Your task to perform on an android device: Search for sushi restaurants on Maps Image 0: 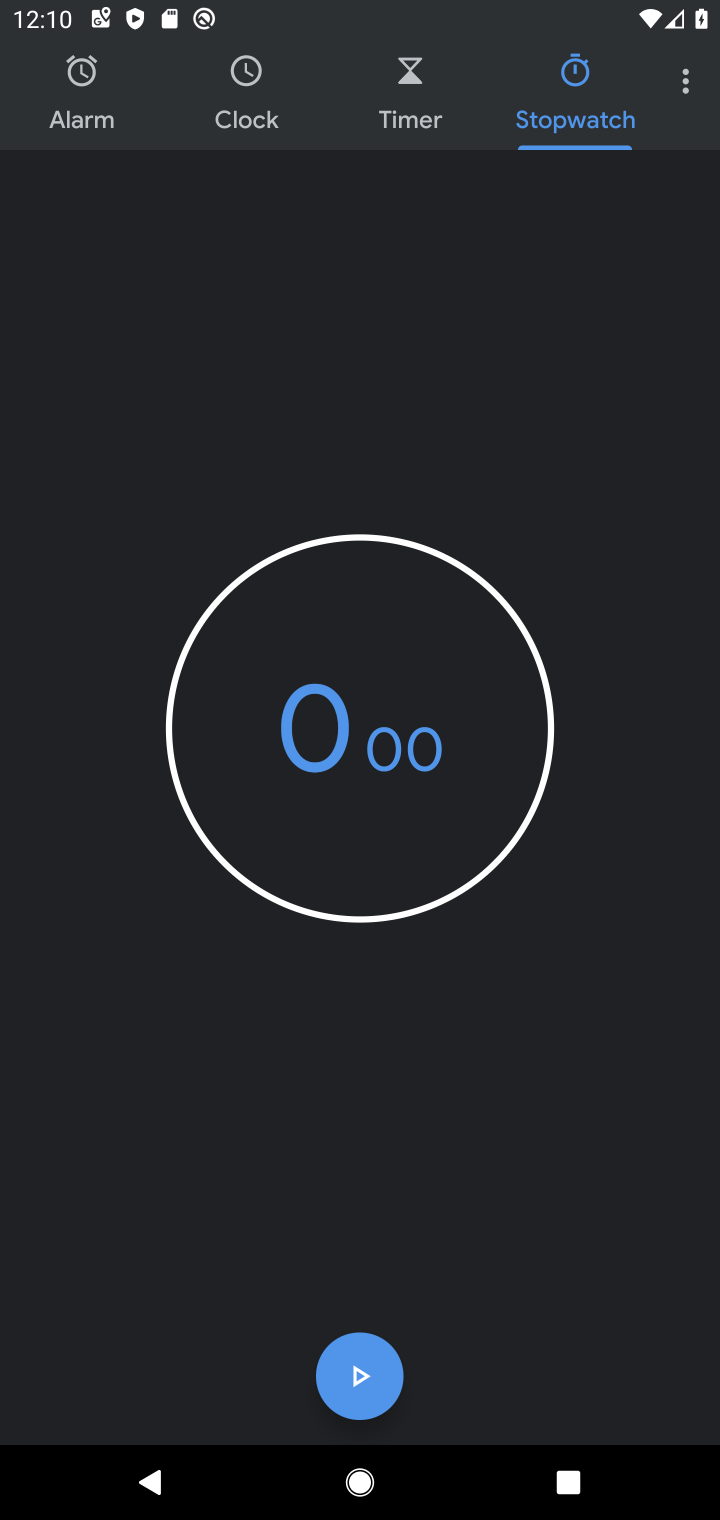
Step 0: press back button
Your task to perform on an android device: Search for sushi restaurants on Maps Image 1: 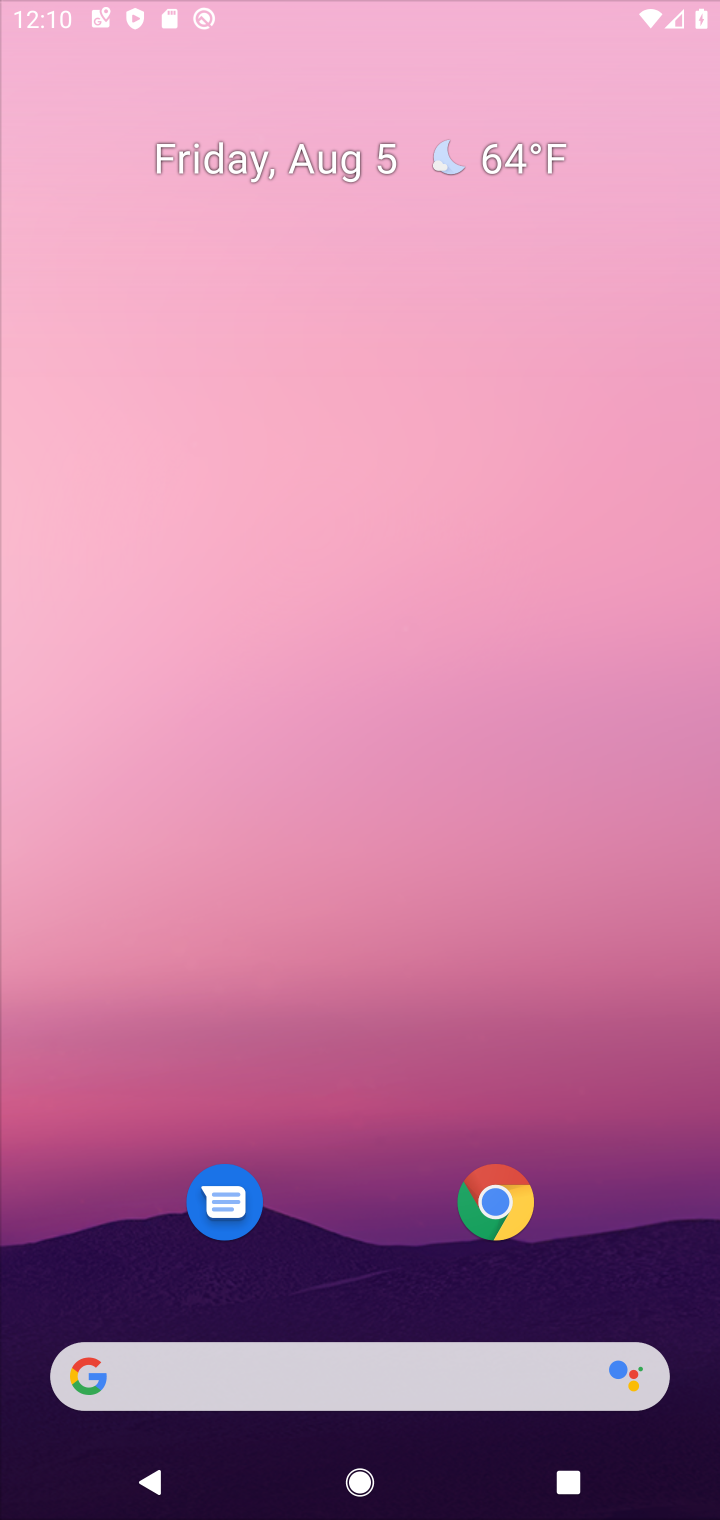
Step 1: press back button
Your task to perform on an android device: Search for sushi restaurants on Maps Image 2: 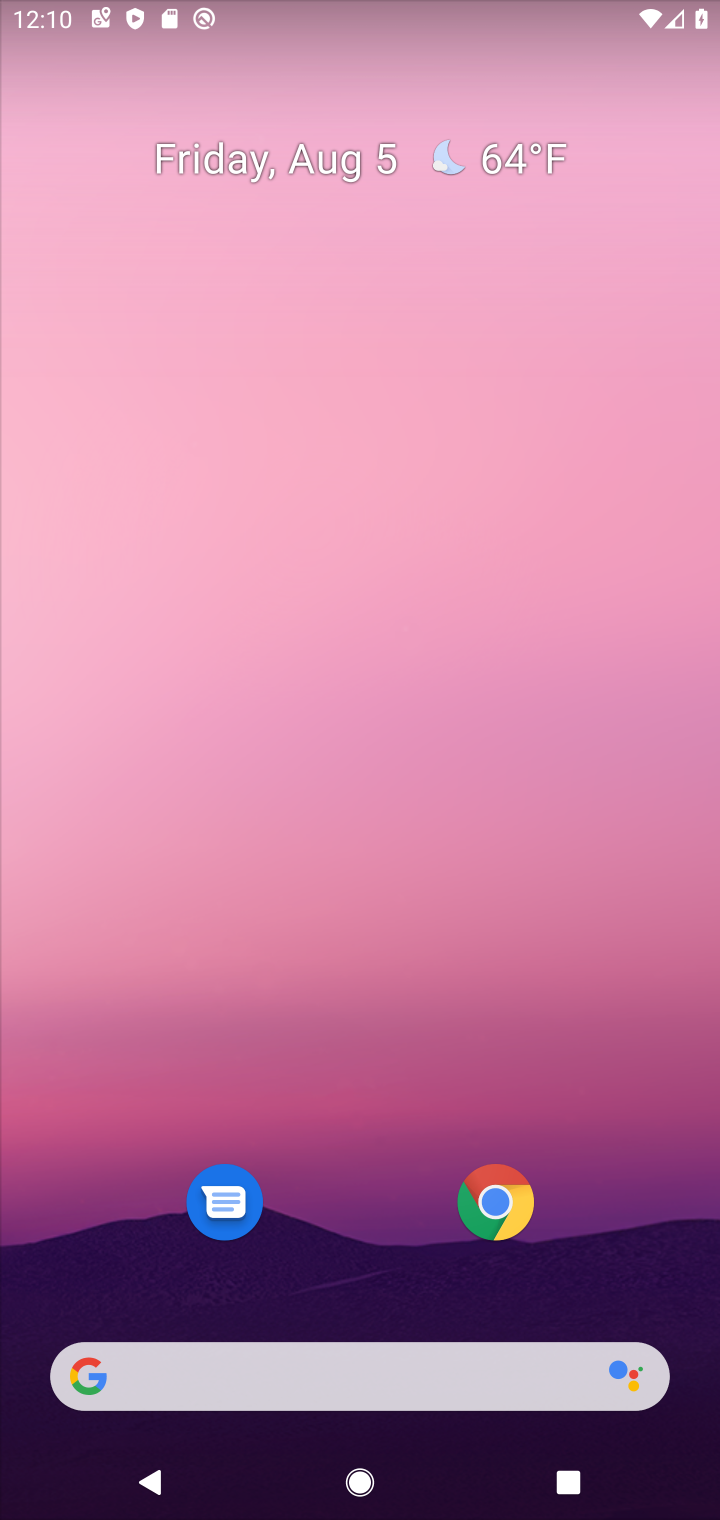
Step 2: drag from (305, 1295) to (444, 139)
Your task to perform on an android device: Search for sushi restaurants on Maps Image 3: 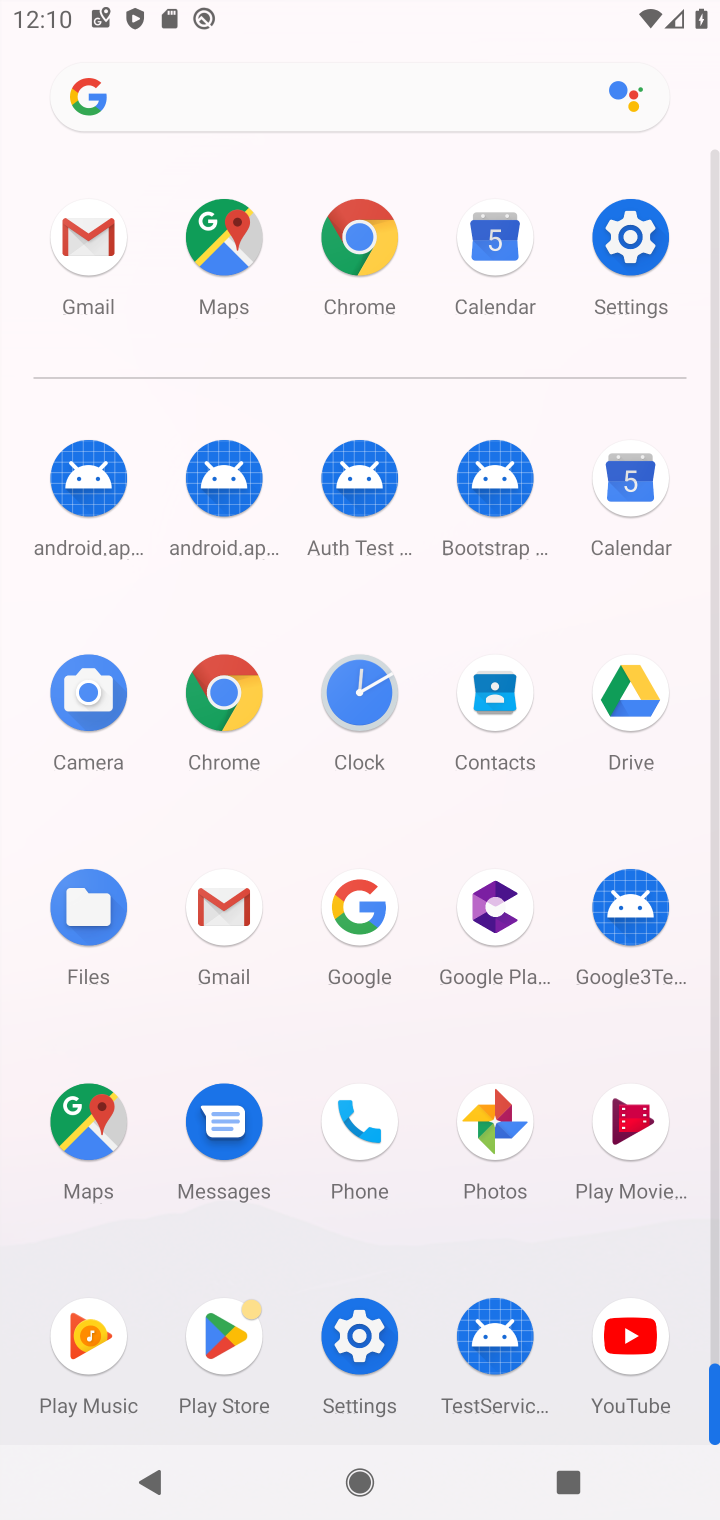
Step 3: click (107, 1169)
Your task to perform on an android device: Search for sushi restaurants on Maps Image 4: 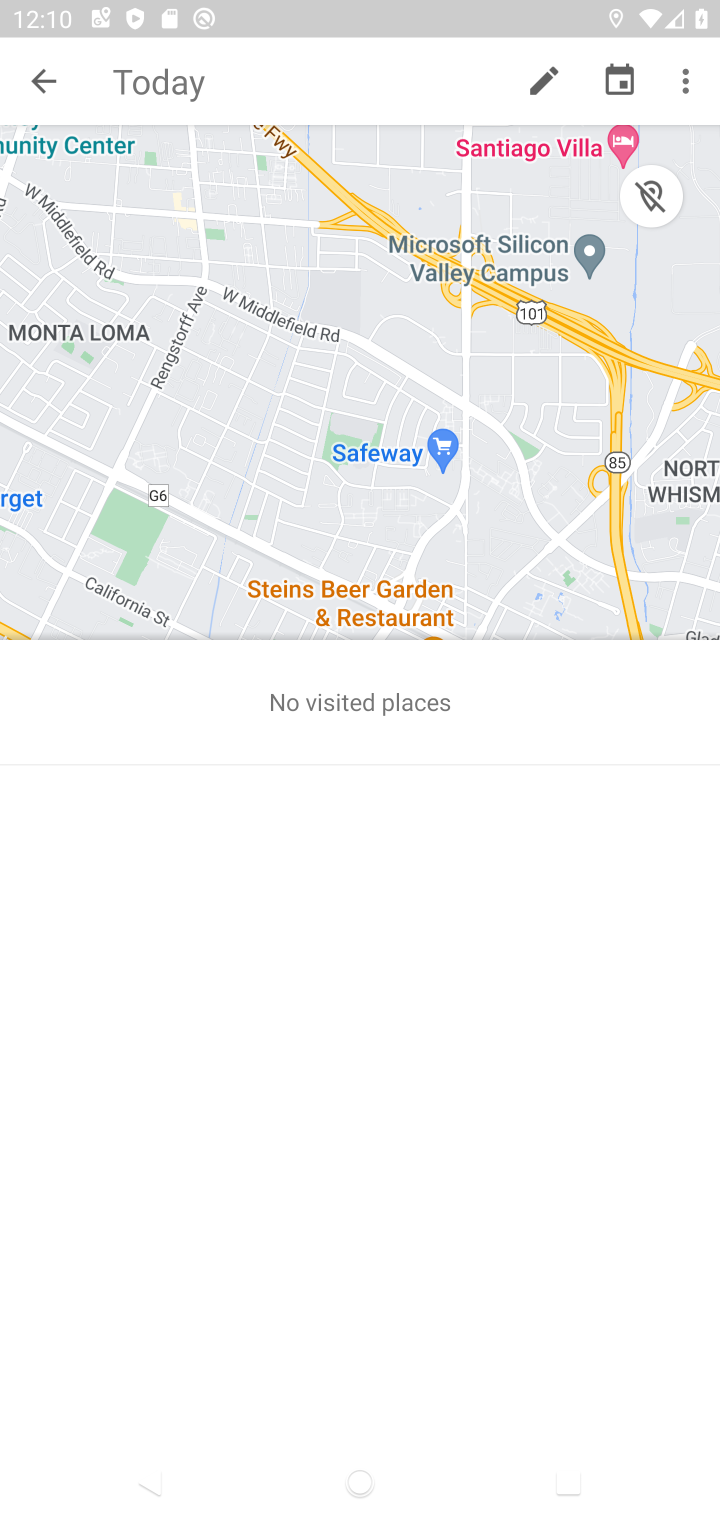
Step 4: click (44, 92)
Your task to perform on an android device: Search for sushi restaurants on Maps Image 5: 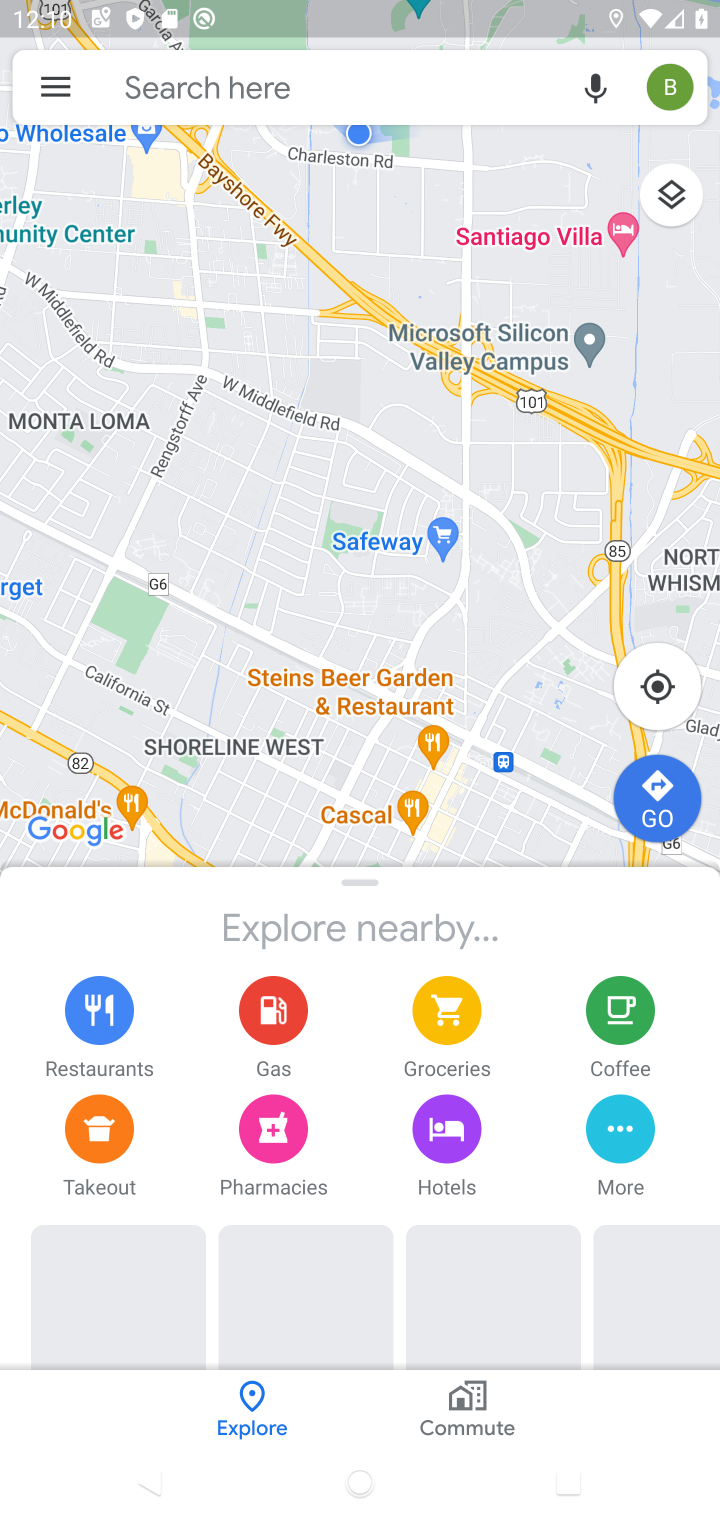
Step 5: click (275, 82)
Your task to perform on an android device: Search for sushi restaurants on Maps Image 6: 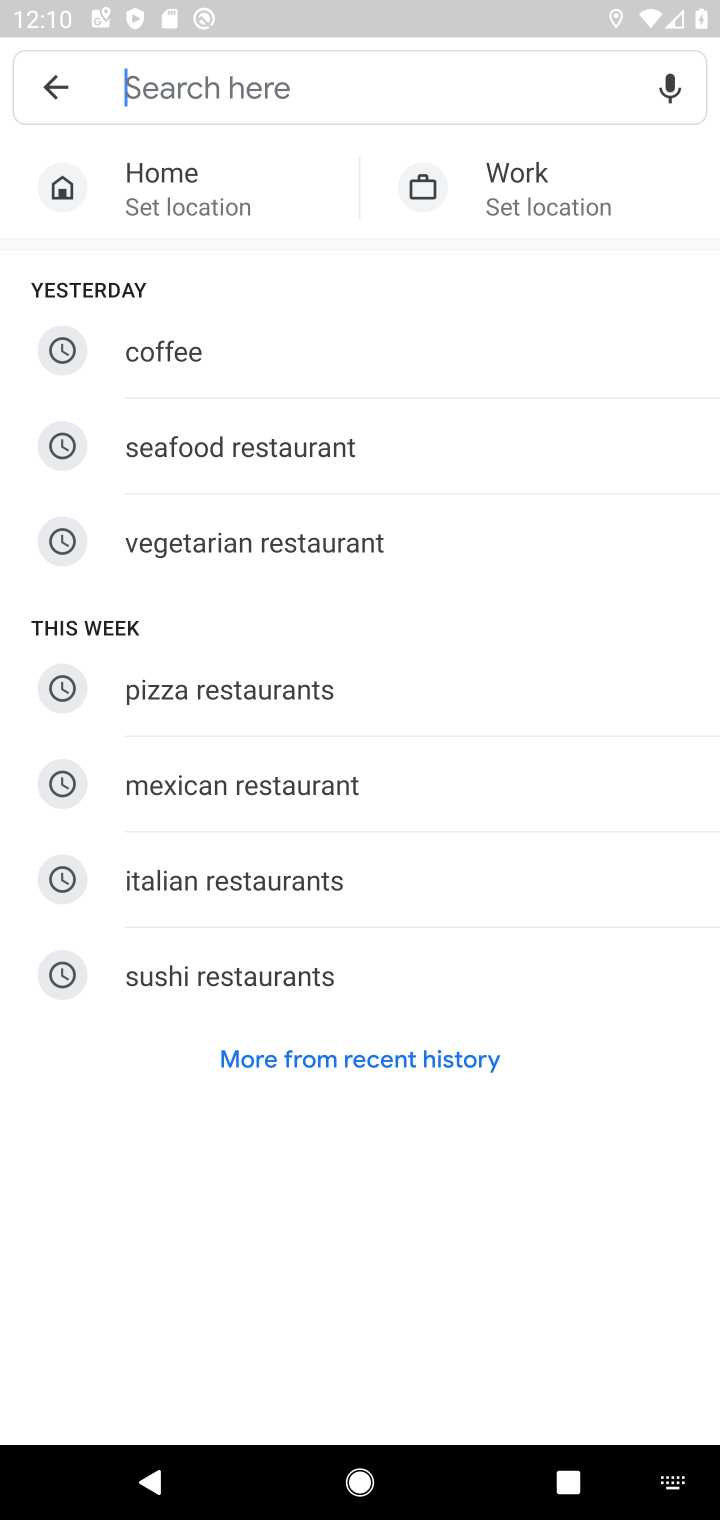
Step 6: type "sushi restaurants"
Your task to perform on an android device: Search for sushi restaurants on Maps Image 7: 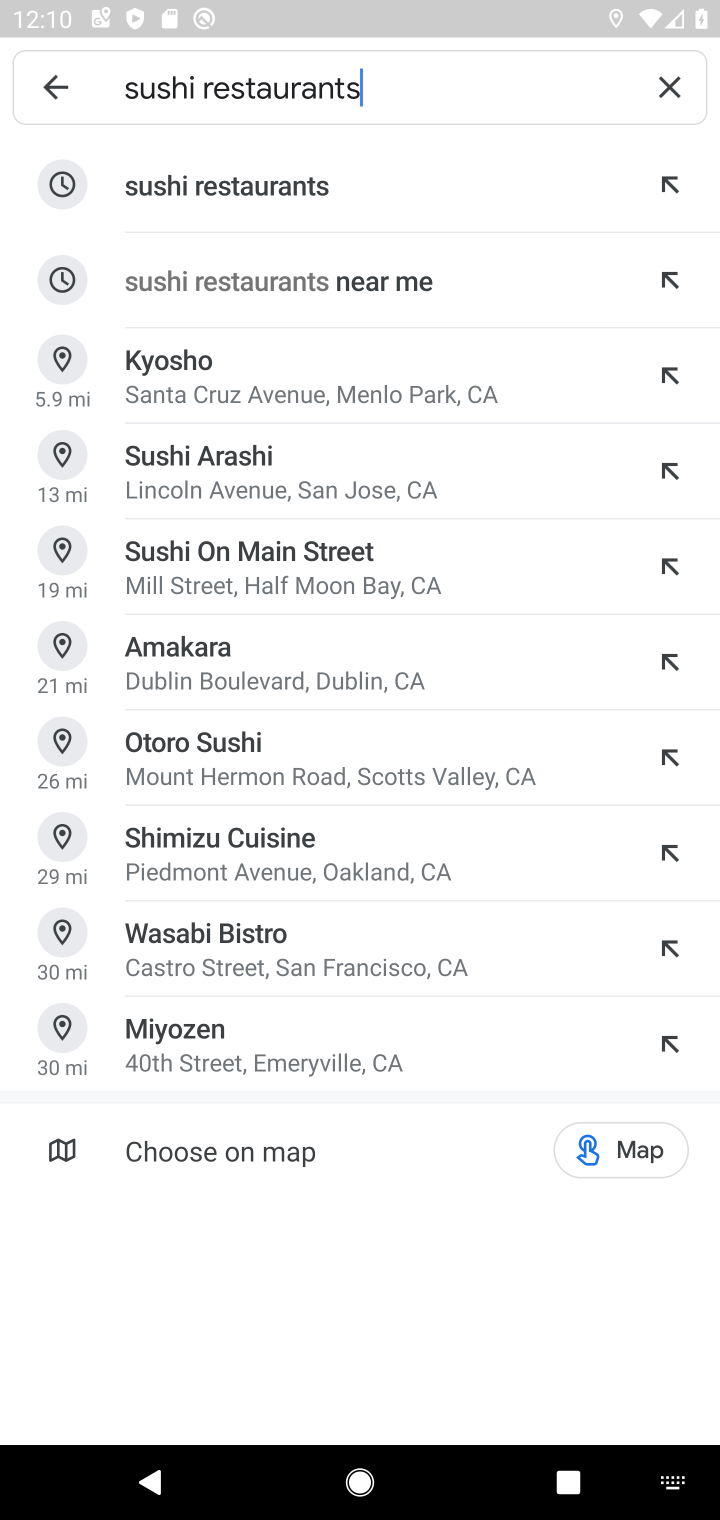
Step 7: click (253, 198)
Your task to perform on an android device: Search for sushi restaurants on Maps Image 8: 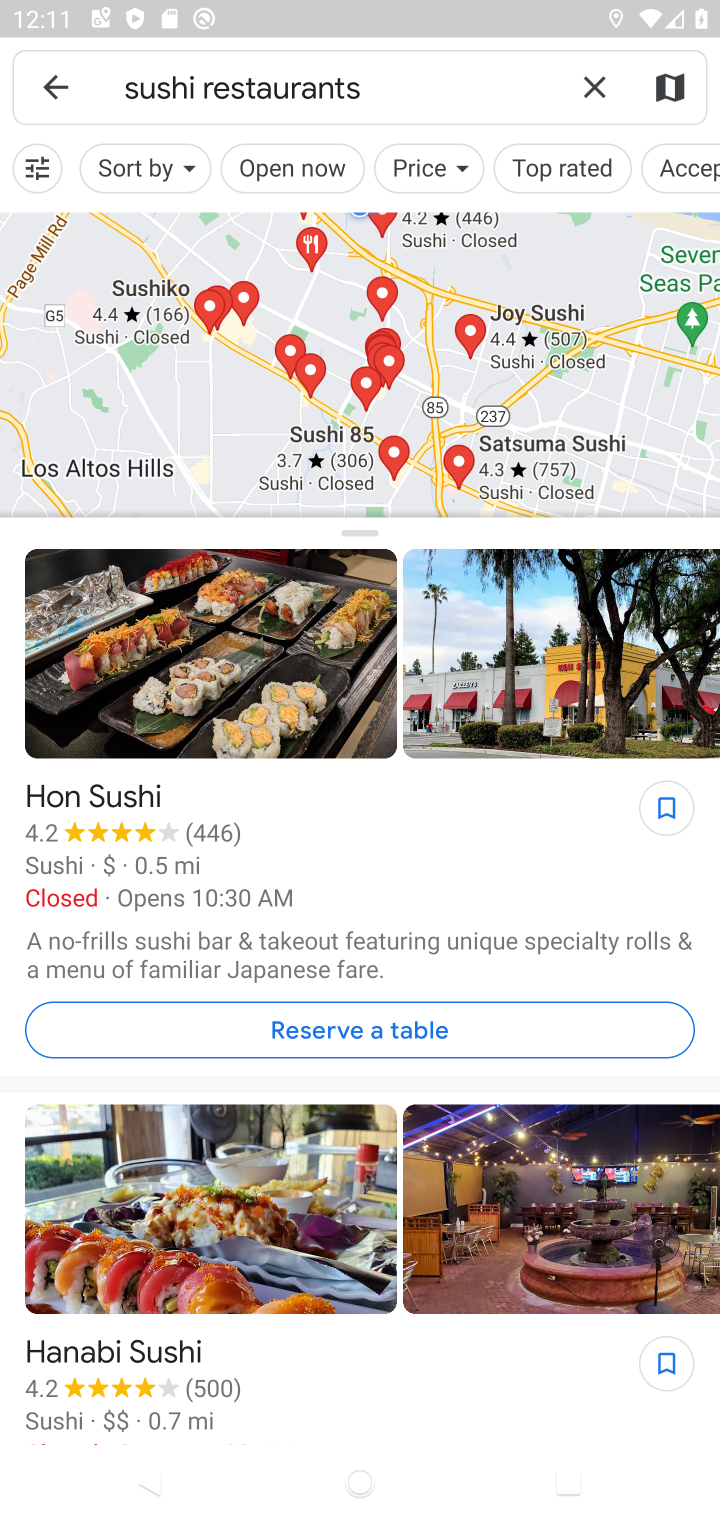
Step 8: task complete